Your task to perform on an android device: Go to Amazon Image 0: 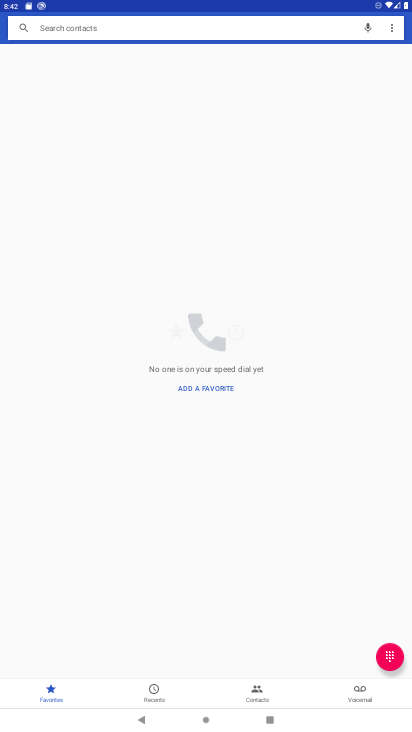
Step 0: press back button
Your task to perform on an android device: Go to Amazon Image 1: 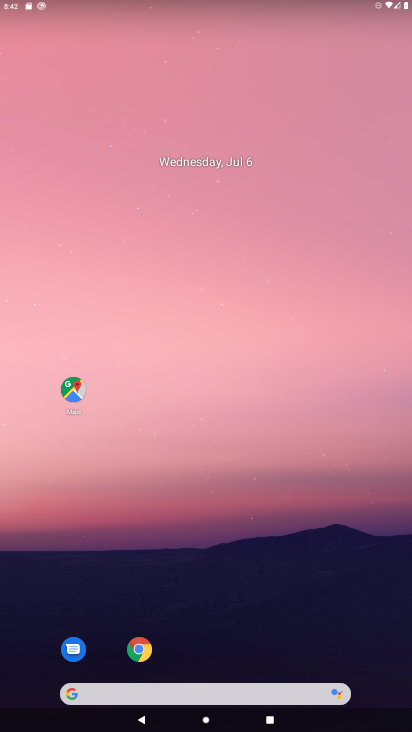
Step 1: drag from (339, 669) to (221, 164)
Your task to perform on an android device: Go to Amazon Image 2: 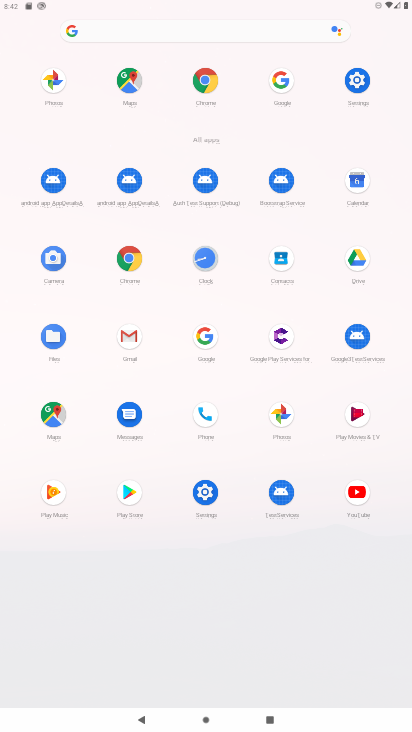
Step 2: click (133, 263)
Your task to perform on an android device: Go to Amazon Image 3: 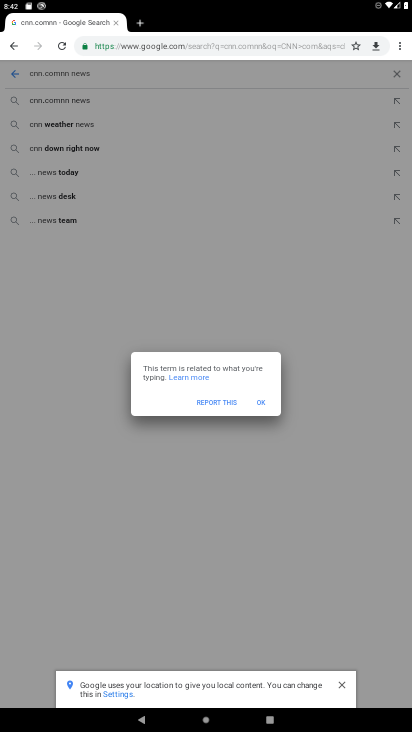
Step 3: click (14, 48)
Your task to perform on an android device: Go to Amazon Image 4: 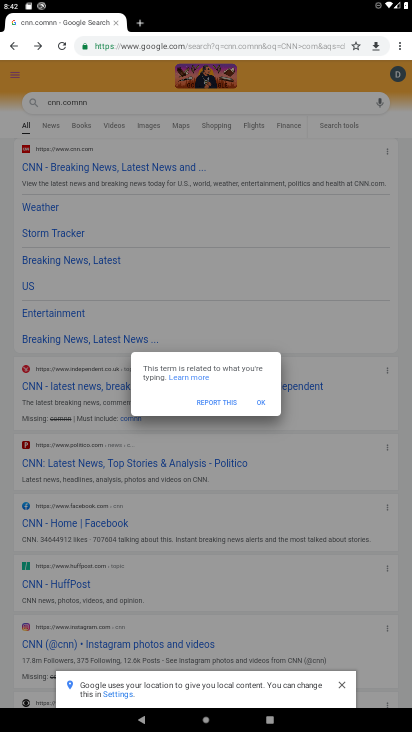
Step 4: click (14, 49)
Your task to perform on an android device: Go to Amazon Image 5: 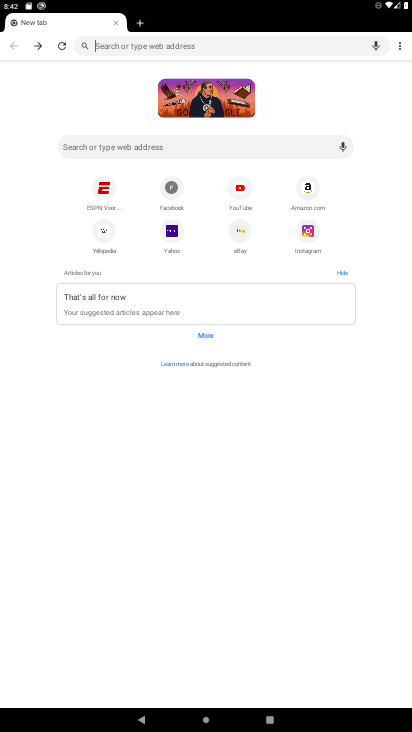
Step 5: click (300, 186)
Your task to perform on an android device: Go to Amazon Image 6: 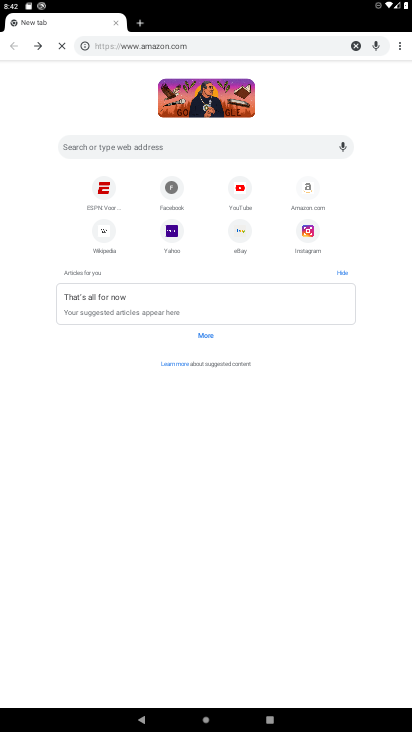
Step 6: click (303, 188)
Your task to perform on an android device: Go to Amazon Image 7: 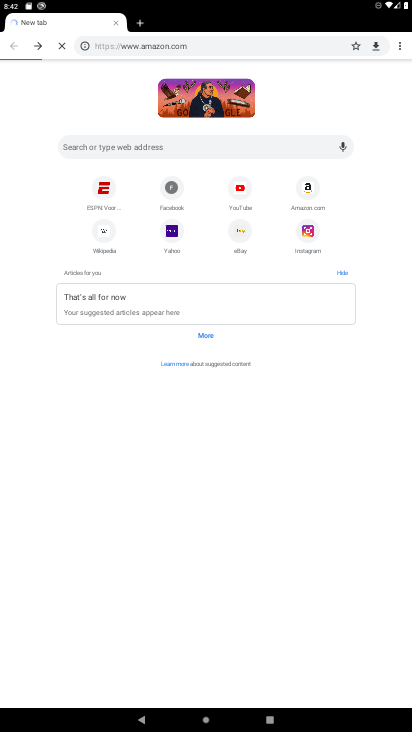
Step 7: click (307, 192)
Your task to perform on an android device: Go to Amazon Image 8: 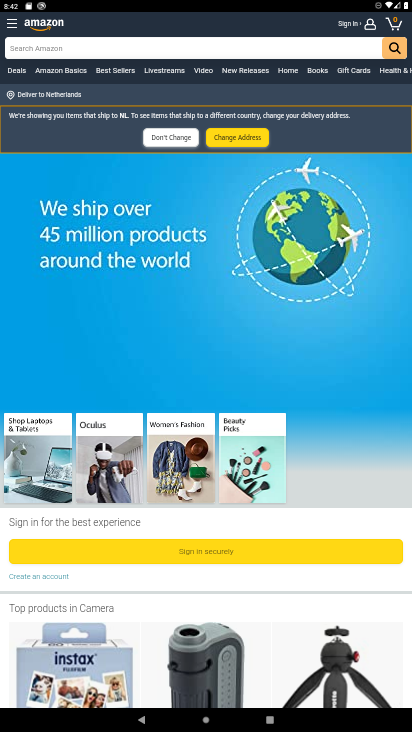
Step 8: task complete